Your task to perform on an android device: refresh tabs in the chrome app Image 0: 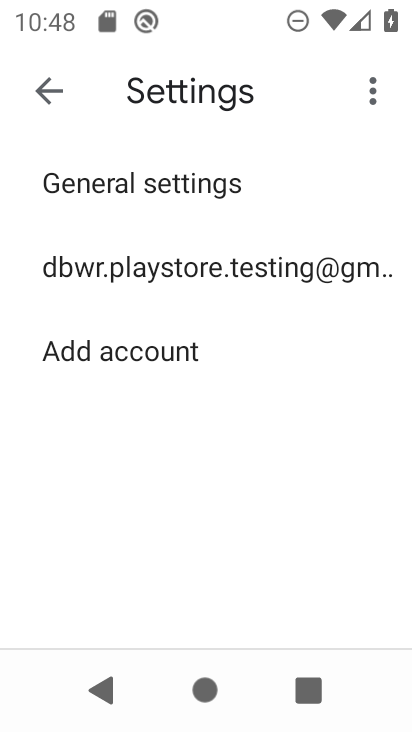
Step 0: press back button
Your task to perform on an android device: refresh tabs in the chrome app Image 1: 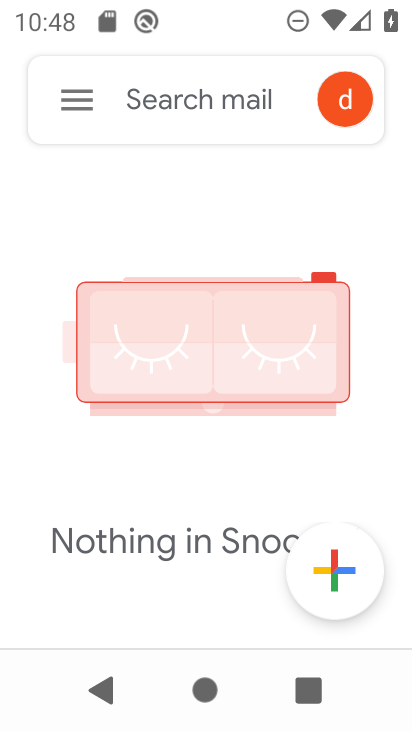
Step 1: press back button
Your task to perform on an android device: refresh tabs in the chrome app Image 2: 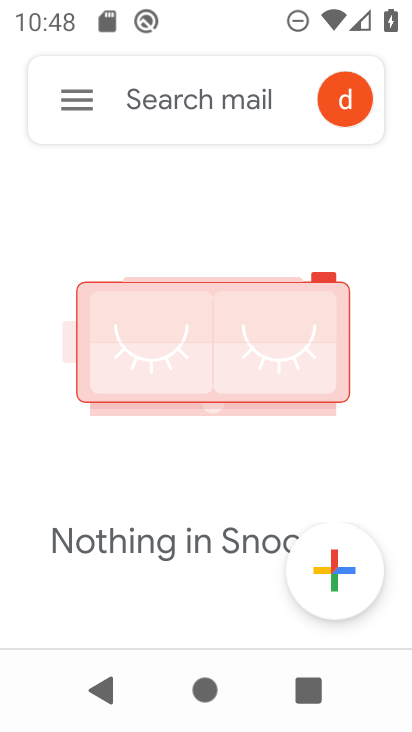
Step 2: press back button
Your task to perform on an android device: refresh tabs in the chrome app Image 3: 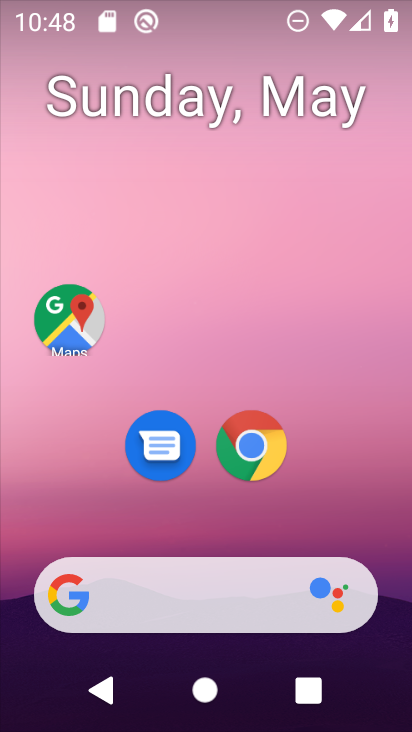
Step 3: click (268, 450)
Your task to perform on an android device: refresh tabs in the chrome app Image 4: 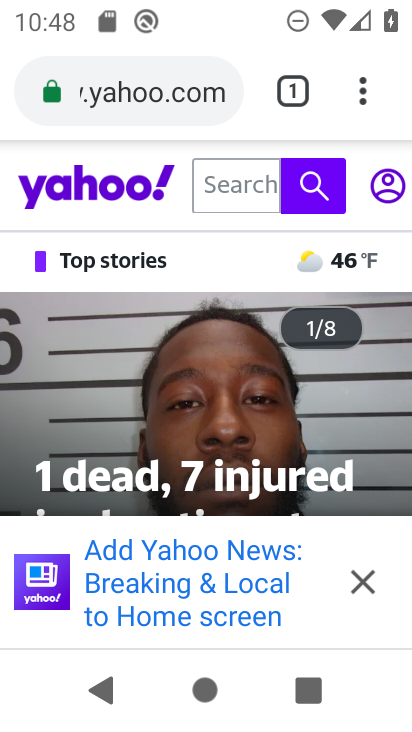
Step 4: task complete